Your task to perform on an android device: choose inbox layout in the gmail app Image 0: 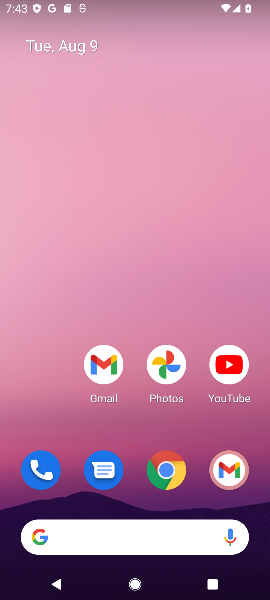
Step 0: click (84, 367)
Your task to perform on an android device: choose inbox layout in the gmail app Image 1: 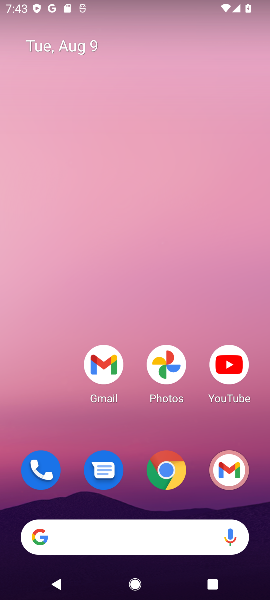
Step 1: click (84, 367)
Your task to perform on an android device: choose inbox layout in the gmail app Image 2: 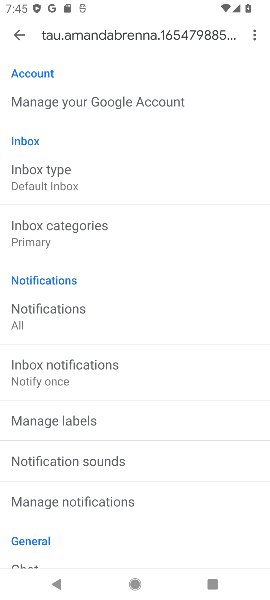
Step 2: click (71, 177)
Your task to perform on an android device: choose inbox layout in the gmail app Image 3: 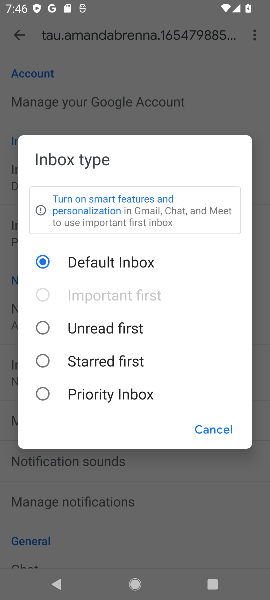
Step 3: click (128, 329)
Your task to perform on an android device: choose inbox layout in the gmail app Image 4: 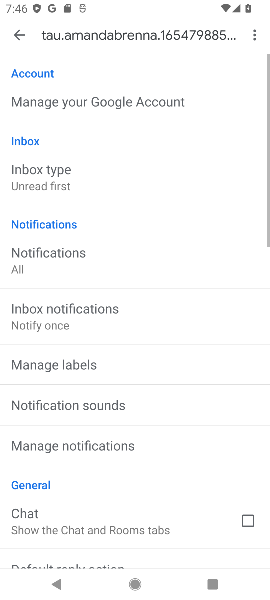
Step 4: task complete